Your task to perform on an android device: turn off priority inbox in the gmail app Image 0: 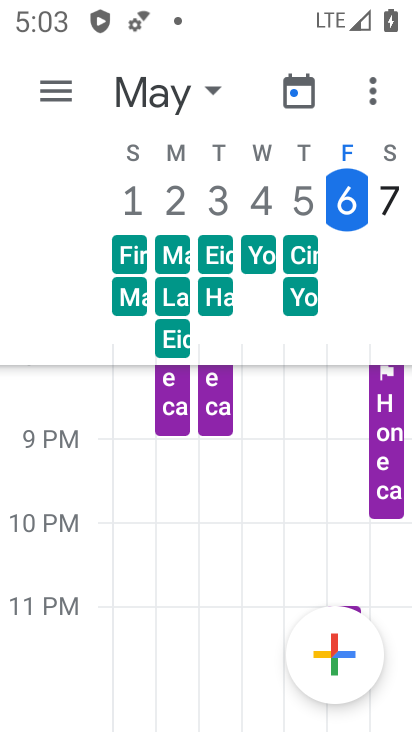
Step 0: press home button
Your task to perform on an android device: turn off priority inbox in the gmail app Image 1: 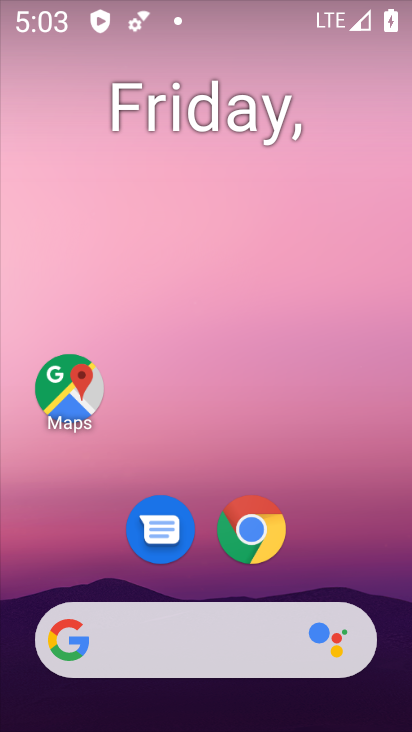
Step 1: drag from (336, 546) to (232, 66)
Your task to perform on an android device: turn off priority inbox in the gmail app Image 2: 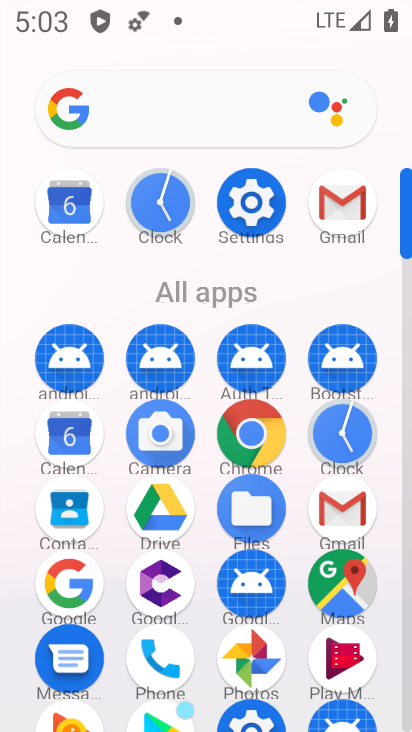
Step 2: click (348, 198)
Your task to perform on an android device: turn off priority inbox in the gmail app Image 3: 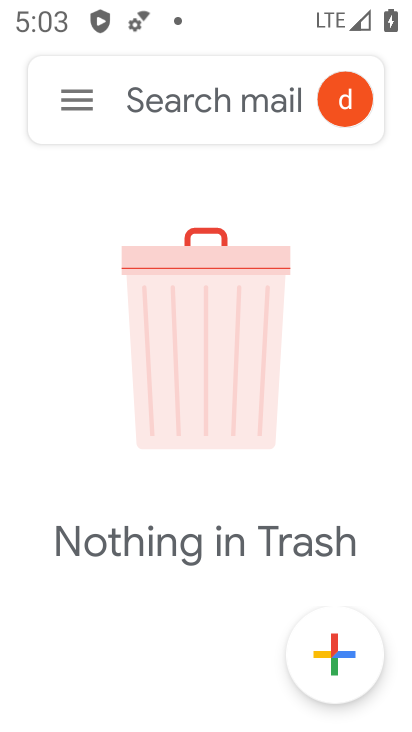
Step 3: click (80, 102)
Your task to perform on an android device: turn off priority inbox in the gmail app Image 4: 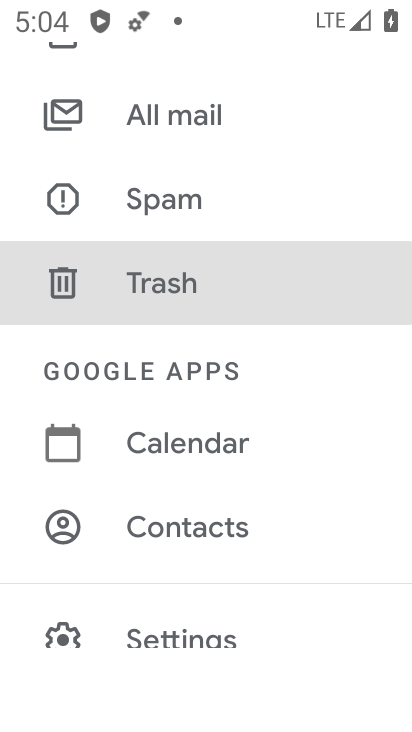
Step 4: click (223, 633)
Your task to perform on an android device: turn off priority inbox in the gmail app Image 5: 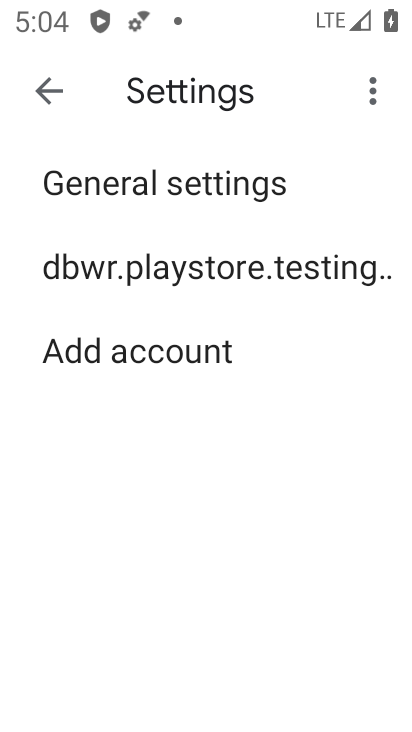
Step 5: click (144, 270)
Your task to perform on an android device: turn off priority inbox in the gmail app Image 6: 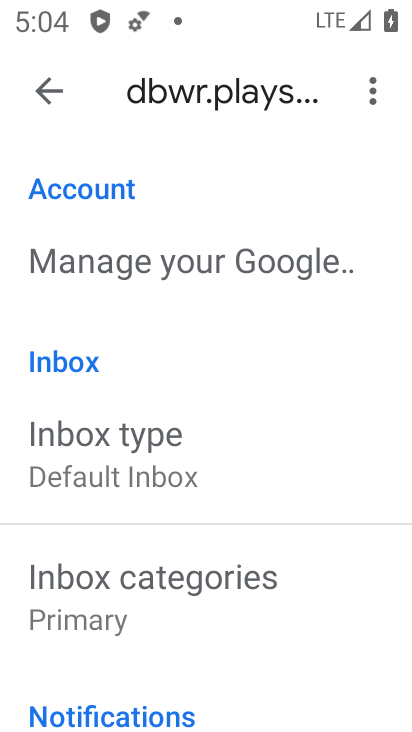
Step 6: click (109, 446)
Your task to perform on an android device: turn off priority inbox in the gmail app Image 7: 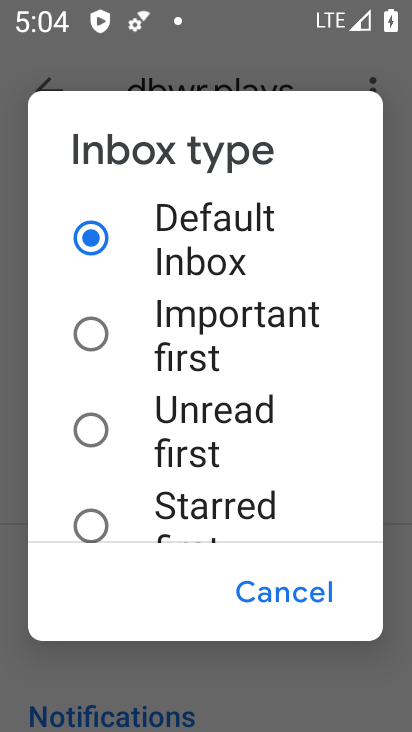
Step 7: task complete